Your task to perform on an android device: change notification settings in the gmail app Image 0: 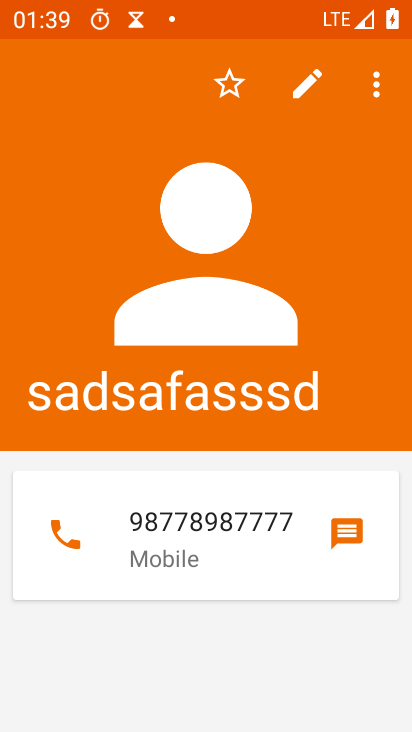
Step 0: press home button
Your task to perform on an android device: change notification settings in the gmail app Image 1: 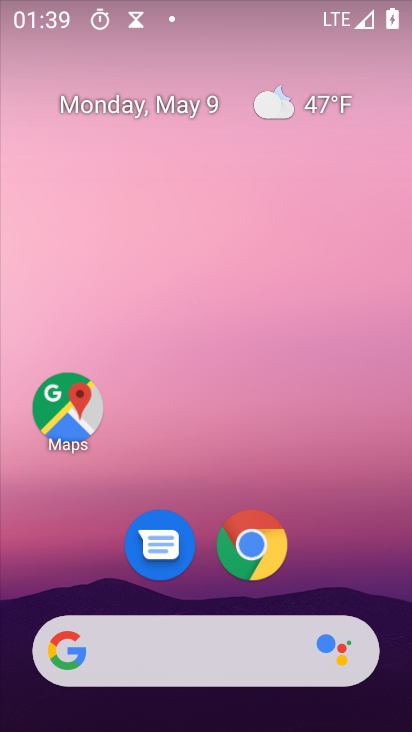
Step 1: drag from (322, 650) to (296, 15)
Your task to perform on an android device: change notification settings in the gmail app Image 2: 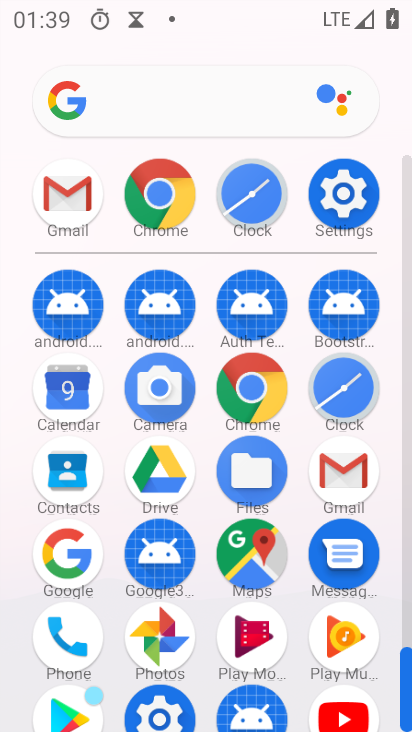
Step 2: click (365, 466)
Your task to perform on an android device: change notification settings in the gmail app Image 3: 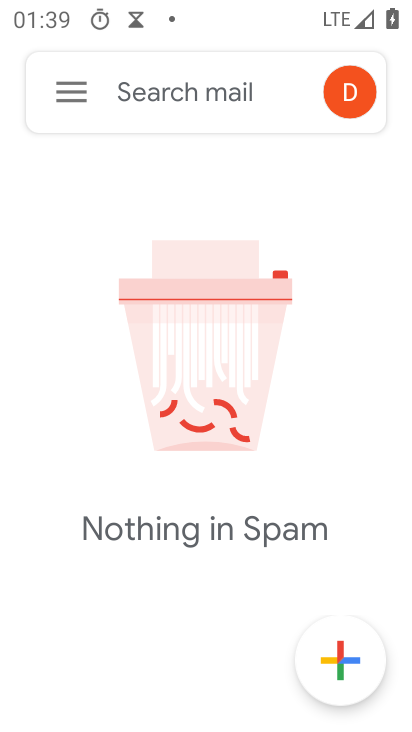
Step 3: click (62, 91)
Your task to perform on an android device: change notification settings in the gmail app Image 4: 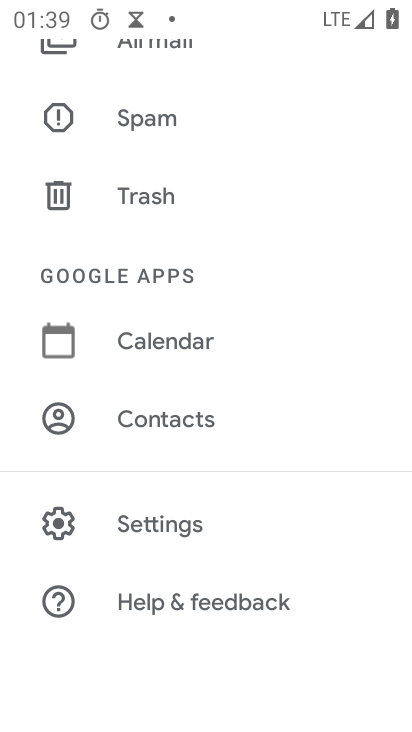
Step 4: click (215, 538)
Your task to perform on an android device: change notification settings in the gmail app Image 5: 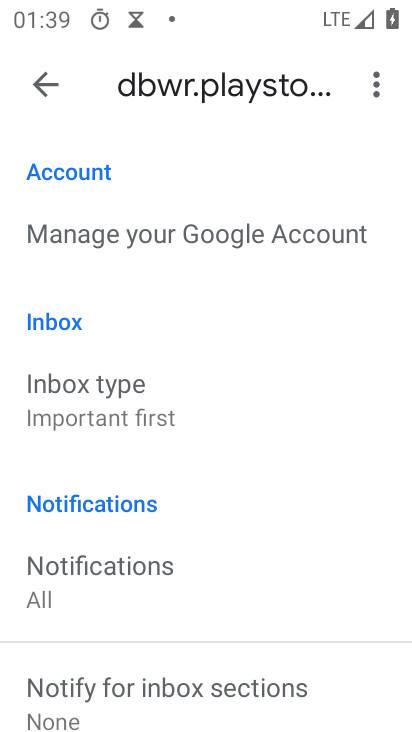
Step 5: drag from (199, 599) to (234, 31)
Your task to perform on an android device: change notification settings in the gmail app Image 6: 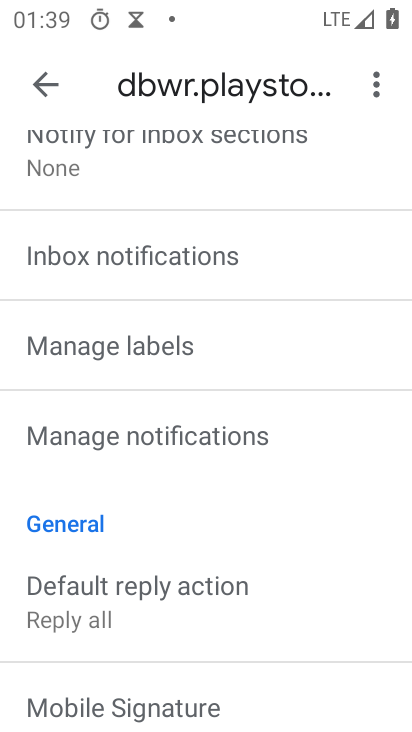
Step 6: click (219, 437)
Your task to perform on an android device: change notification settings in the gmail app Image 7: 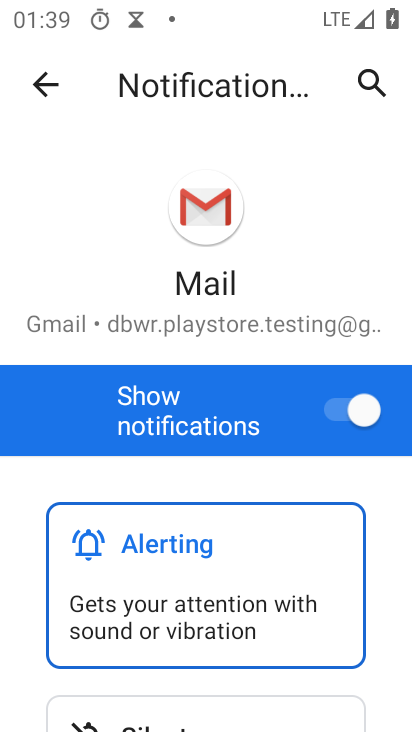
Step 7: click (338, 413)
Your task to perform on an android device: change notification settings in the gmail app Image 8: 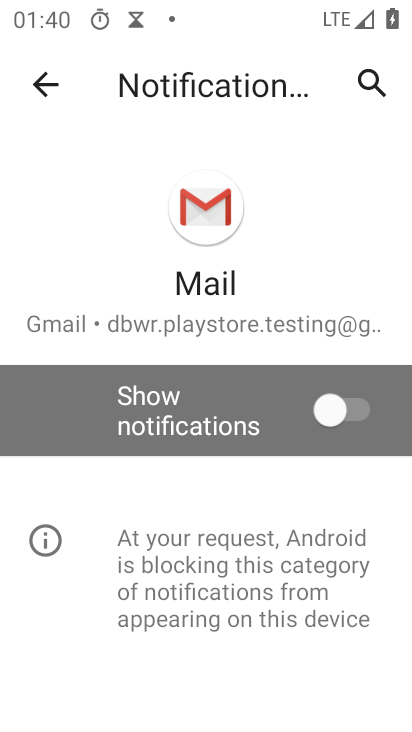
Step 8: task complete